Your task to perform on an android device: set the timer Image 0: 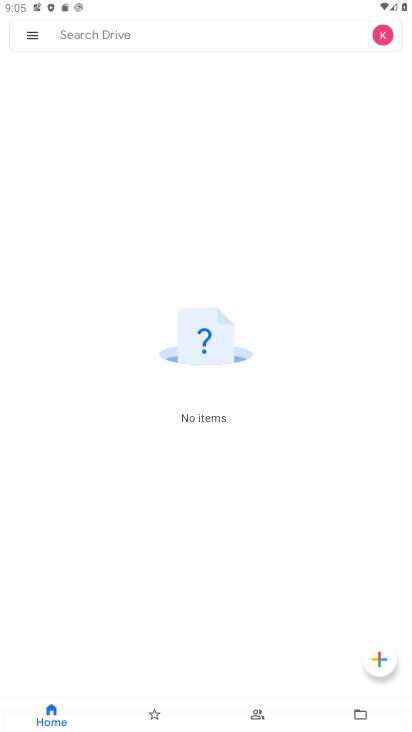
Step 0: press home button
Your task to perform on an android device: set the timer Image 1: 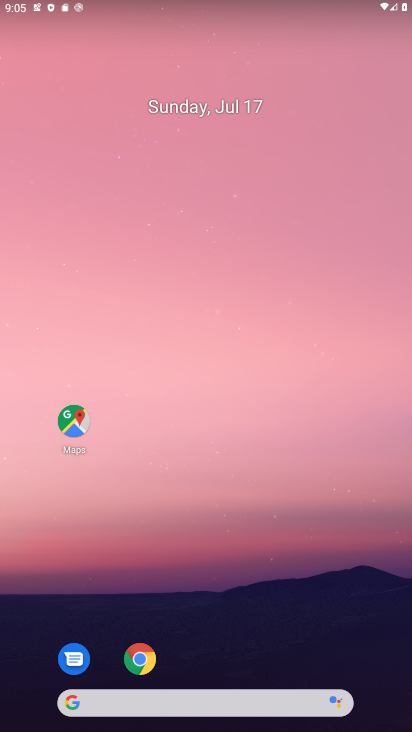
Step 1: drag from (180, 654) to (219, 166)
Your task to perform on an android device: set the timer Image 2: 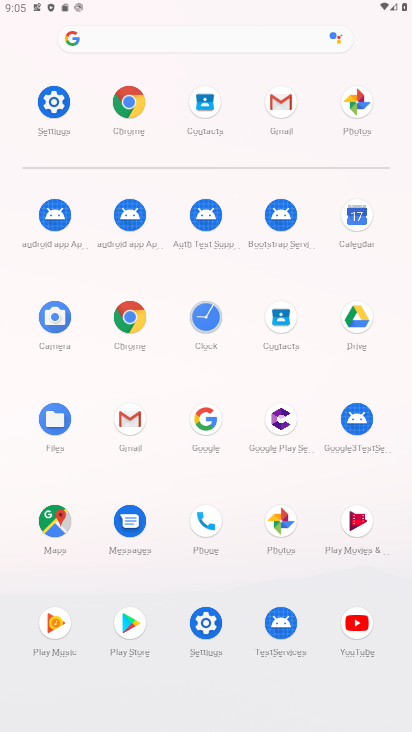
Step 2: click (208, 327)
Your task to perform on an android device: set the timer Image 3: 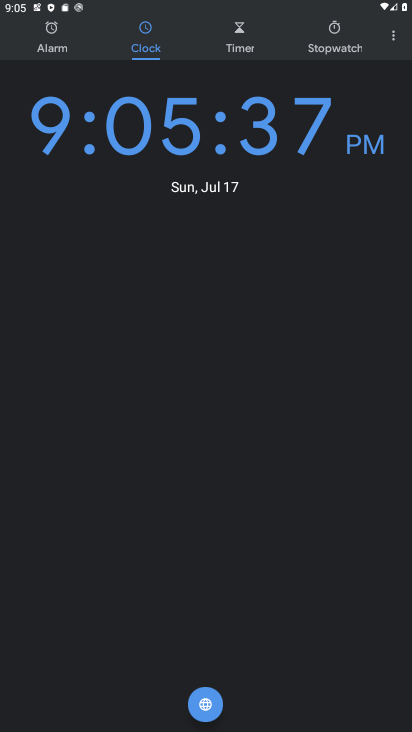
Step 3: click (229, 58)
Your task to perform on an android device: set the timer Image 4: 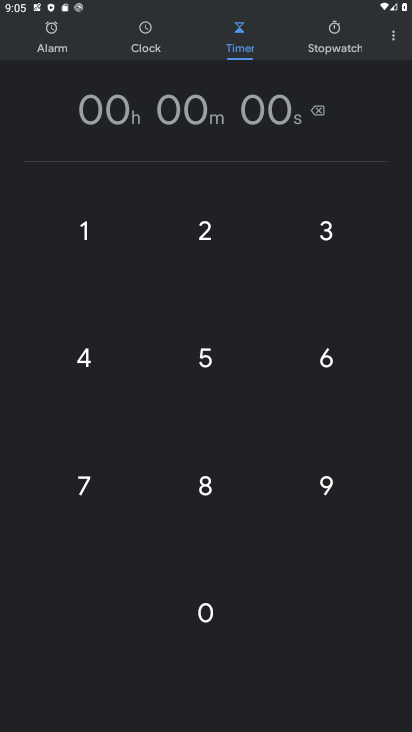
Step 4: click (288, 123)
Your task to perform on an android device: set the timer Image 5: 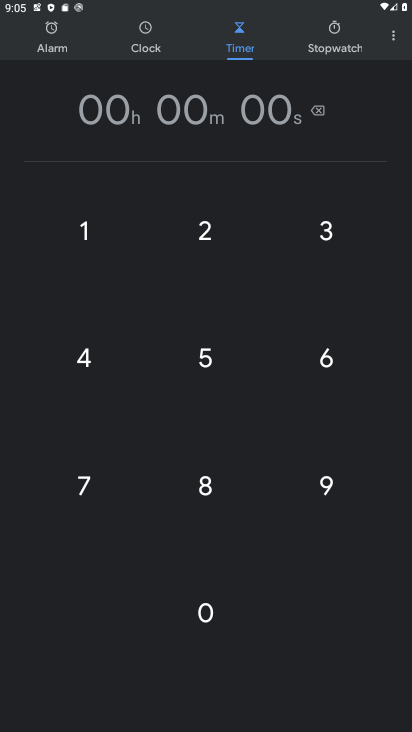
Step 5: type "11"
Your task to perform on an android device: set the timer Image 6: 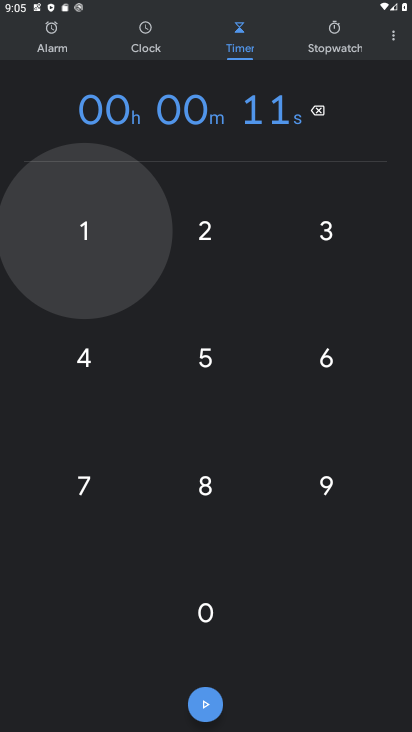
Step 6: click (216, 704)
Your task to perform on an android device: set the timer Image 7: 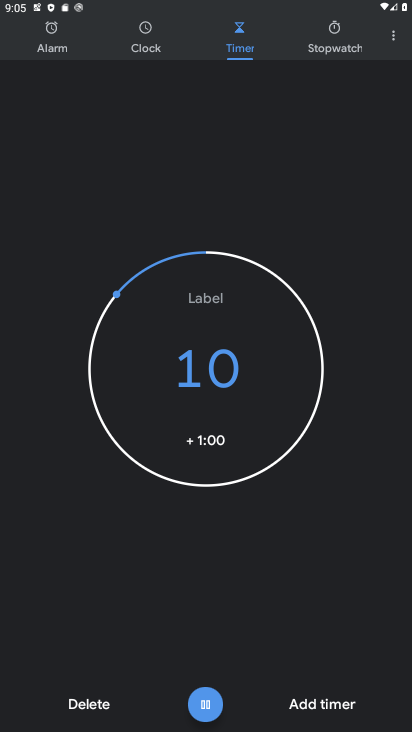
Step 7: task complete